Your task to perform on an android device: change timer sound Image 0: 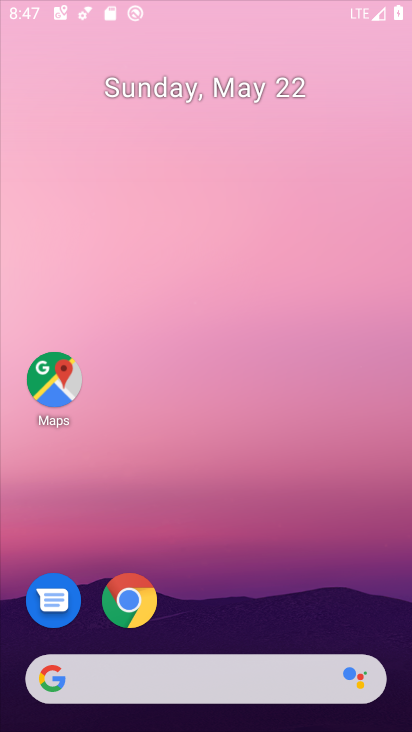
Step 0: drag from (218, 633) to (251, 394)
Your task to perform on an android device: change timer sound Image 1: 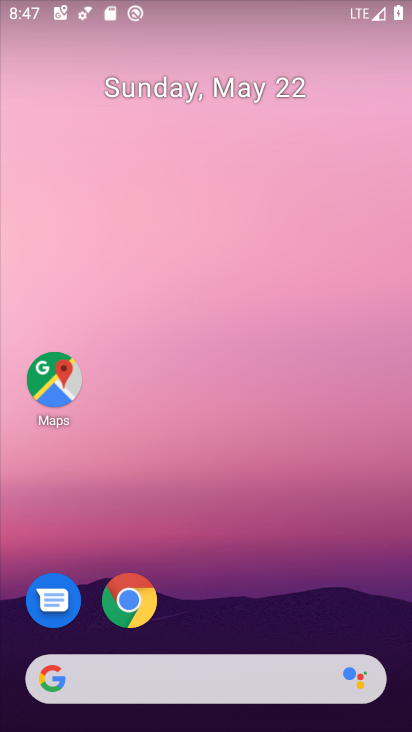
Step 1: drag from (169, 662) to (259, 241)
Your task to perform on an android device: change timer sound Image 2: 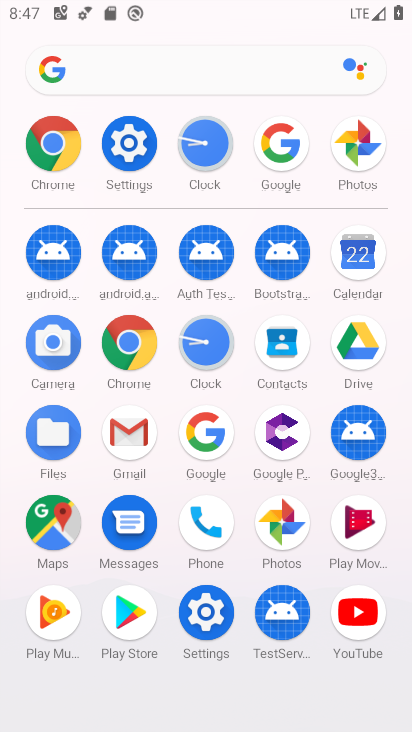
Step 2: click (197, 153)
Your task to perform on an android device: change timer sound Image 3: 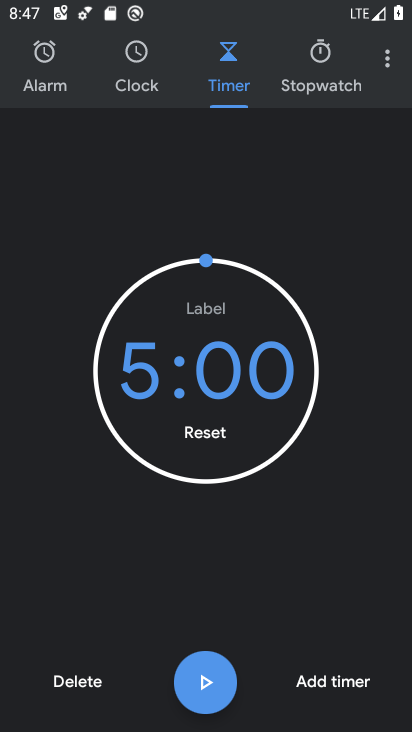
Step 3: click (381, 58)
Your task to perform on an android device: change timer sound Image 4: 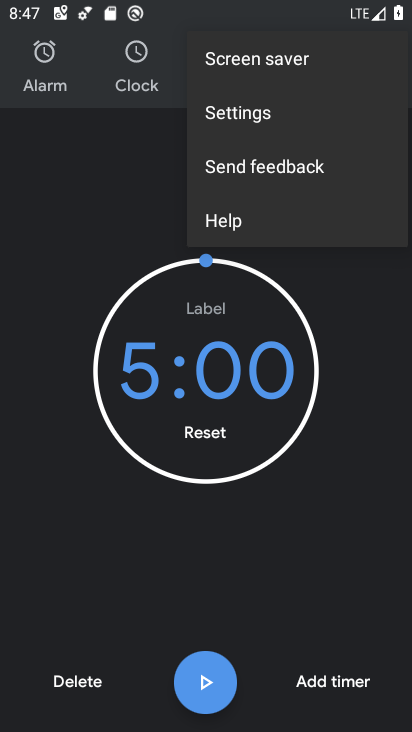
Step 4: click (241, 113)
Your task to perform on an android device: change timer sound Image 5: 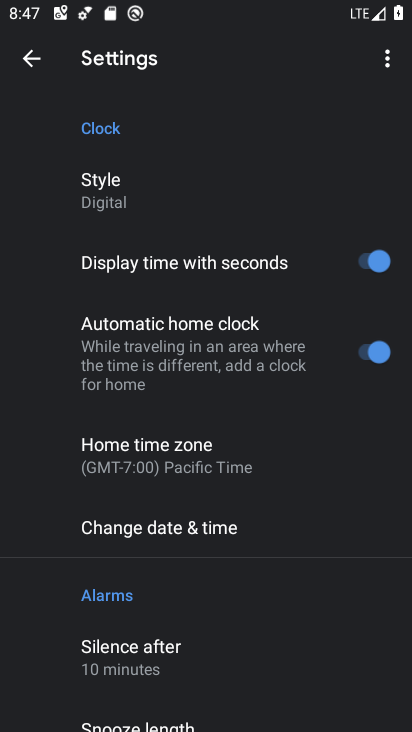
Step 5: drag from (191, 658) to (231, 153)
Your task to perform on an android device: change timer sound Image 6: 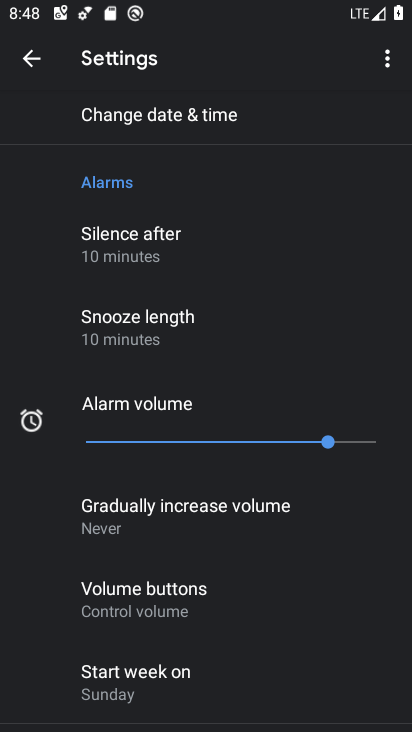
Step 6: drag from (168, 673) to (205, 248)
Your task to perform on an android device: change timer sound Image 7: 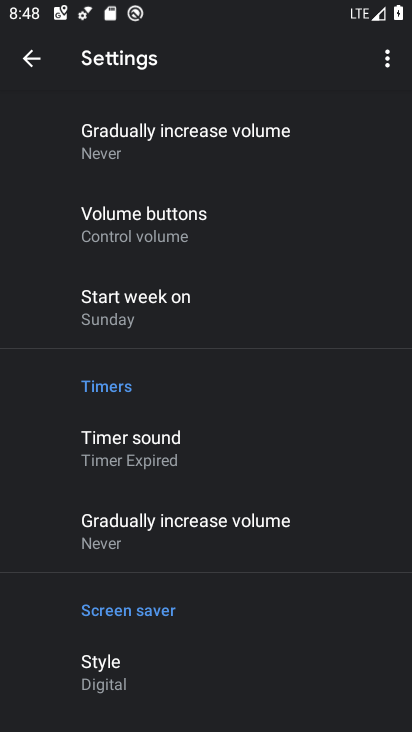
Step 7: drag from (178, 634) to (209, 376)
Your task to perform on an android device: change timer sound Image 8: 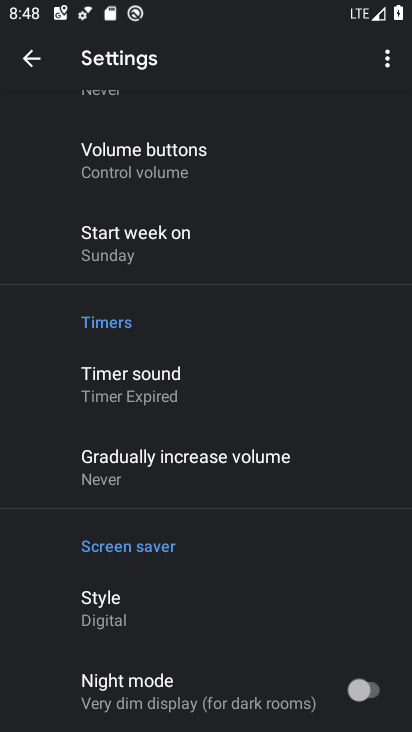
Step 8: click (146, 380)
Your task to perform on an android device: change timer sound Image 9: 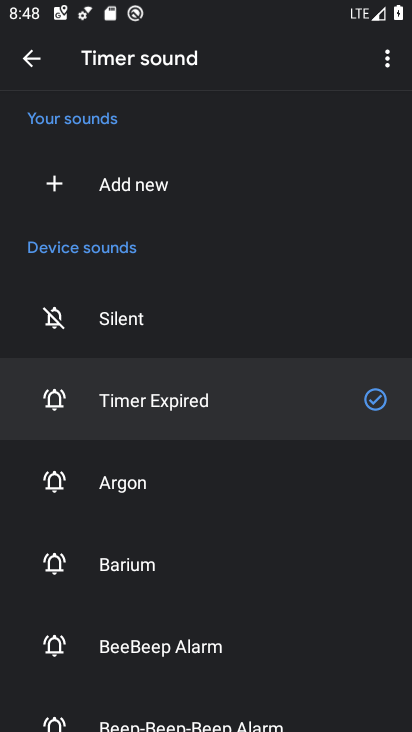
Step 9: task complete